Your task to perform on an android device: turn off notifications in google photos Image 0: 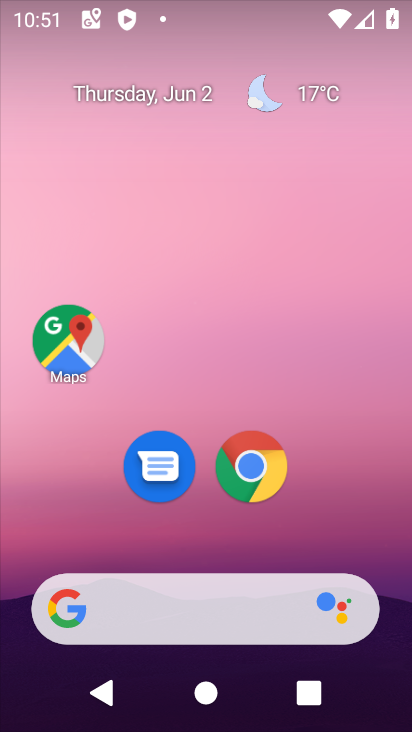
Step 0: drag from (310, 590) to (291, 282)
Your task to perform on an android device: turn off notifications in google photos Image 1: 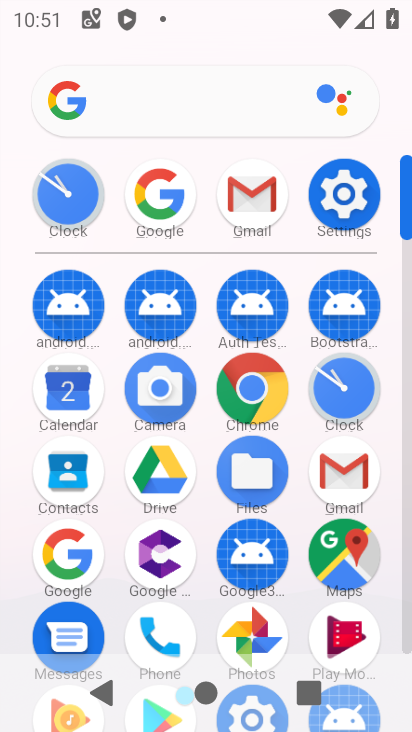
Step 1: click (235, 630)
Your task to perform on an android device: turn off notifications in google photos Image 2: 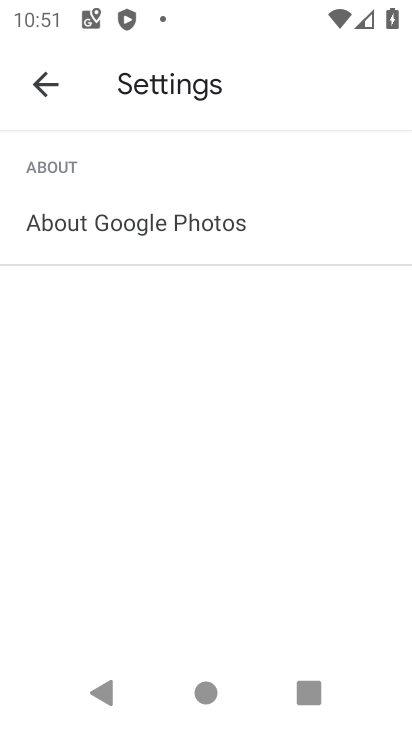
Step 2: click (41, 92)
Your task to perform on an android device: turn off notifications in google photos Image 3: 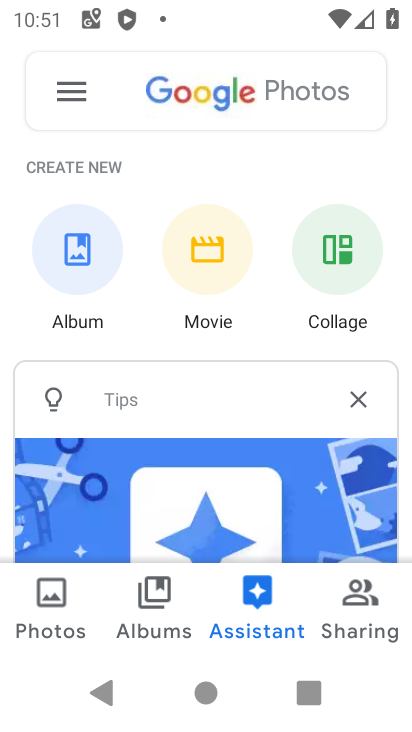
Step 3: click (58, 79)
Your task to perform on an android device: turn off notifications in google photos Image 4: 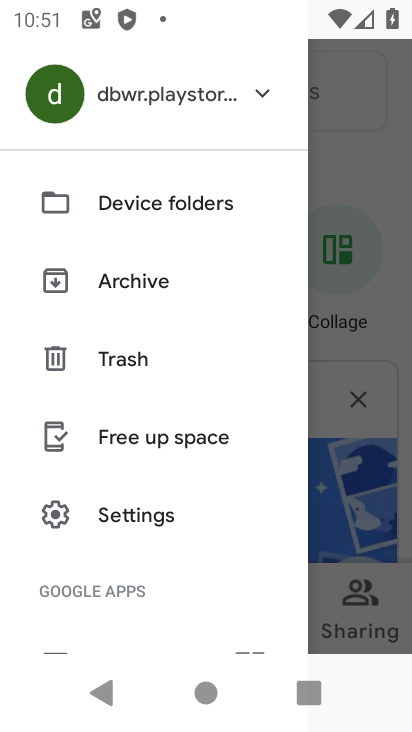
Step 4: click (133, 523)
Your task to perform on an android device: turn off notifications in google photos Image 5: 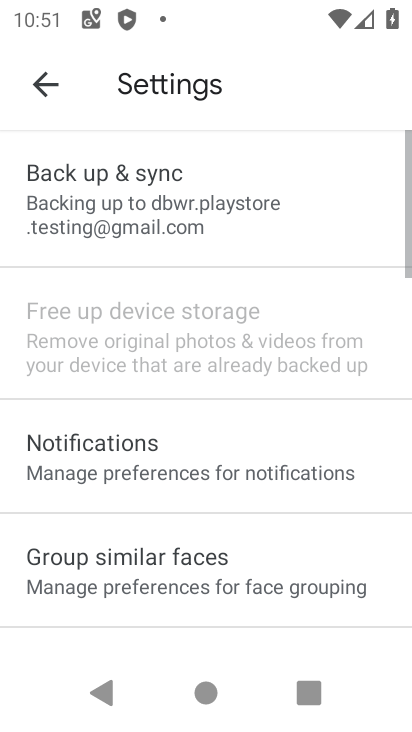
Step 5: click (241, 430)
Your task to perform on an android device: turn off notifications in google photos Image 6: 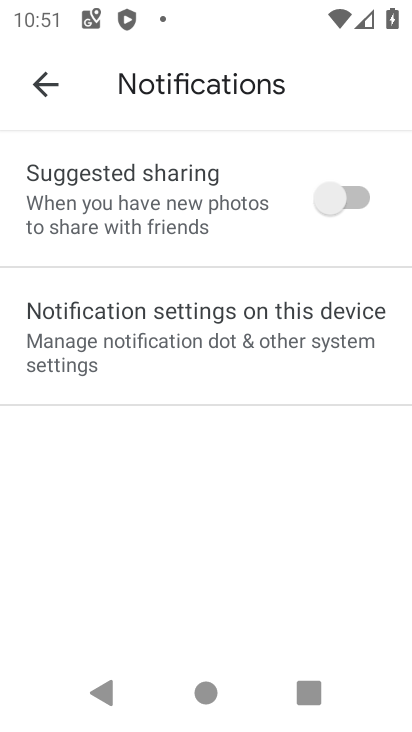
Step 6: click (248, 304)
Your task to perform on an android device: turn off notifications in google photos Image 7: 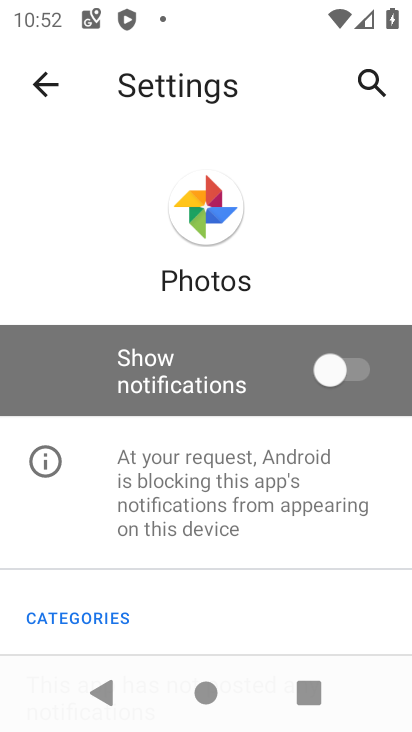
Step 7: task complete